Your task to perform on an android device: turn off improve location accuracy Image 0: 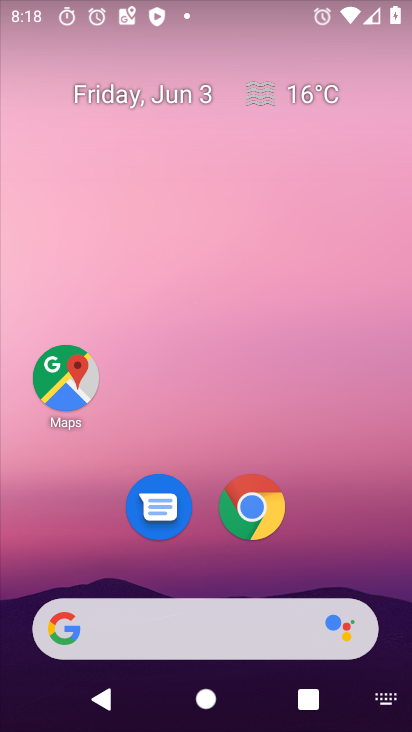
Step 0: drag from (295, 388) to (170, 0)
Your task to perform on an android device: turn off improve location accuracy Image 1: 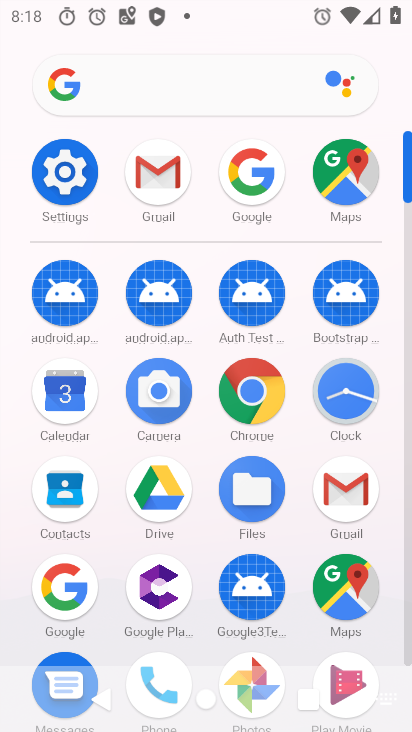
Step 1: click (354, 584)
Your task to perform on an android device: turn off improve location accuracy Image 2: 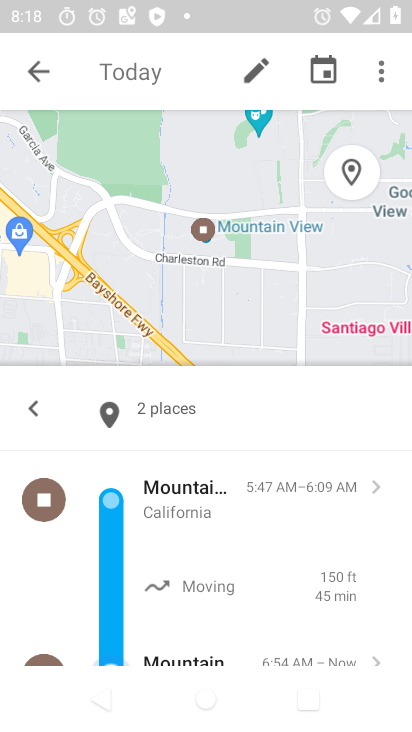
Step 2: press back button
Your task to perform on an android device: turn off improve location accuracy Image 3: 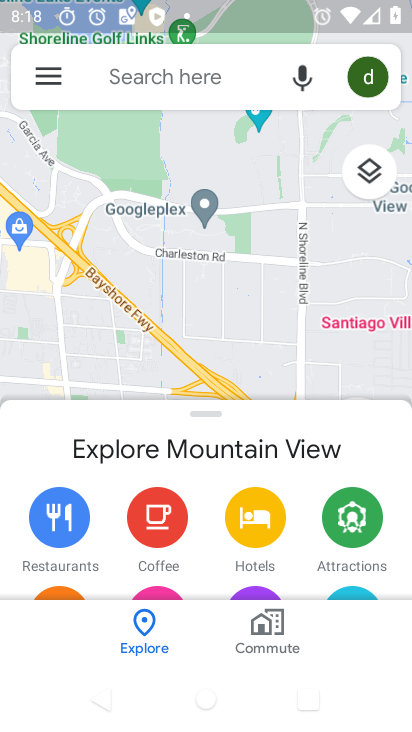
Step 3: press back button
Your task to perform on an android device: turn off improve location accuracy Image 4: 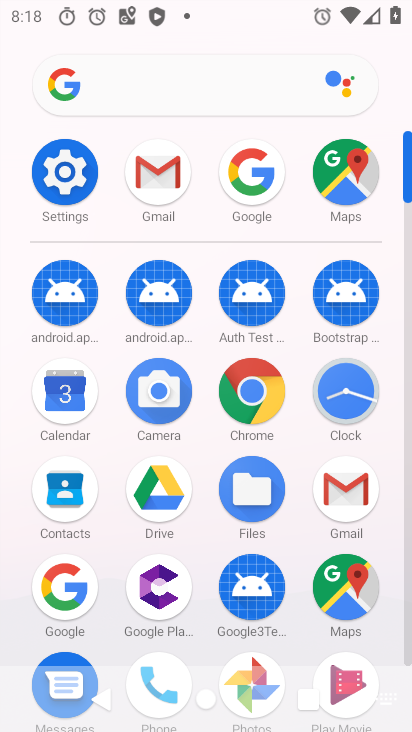
Step 4: click (58, 175)
Your task to perform on an android device: turn off improve location accuracy Image 5: 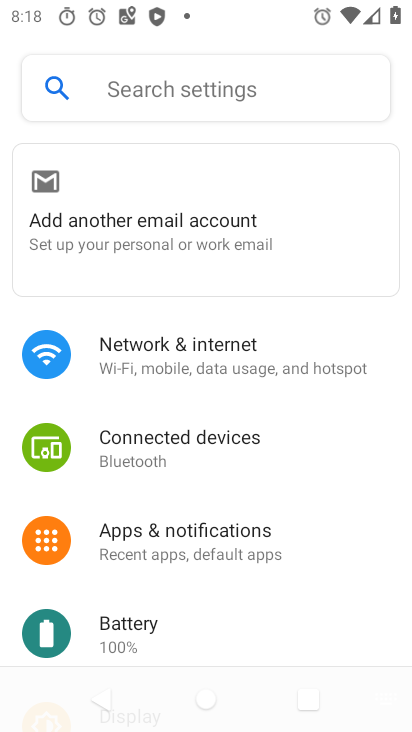
Step 5: drag from (252, 496) to (236, 90)
Your task to perform on an android device: turn off improve location accuracy Image 6: 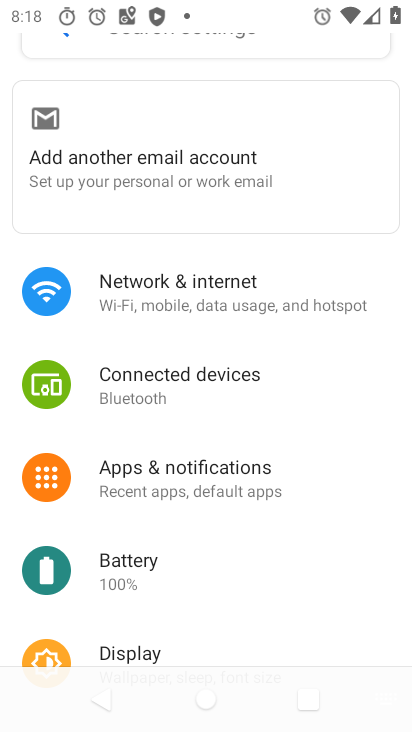
Step 6: drag from (212, 575) to (230, 153)
Your task to perform on an android device: turn off improve location accuracy Image 7: 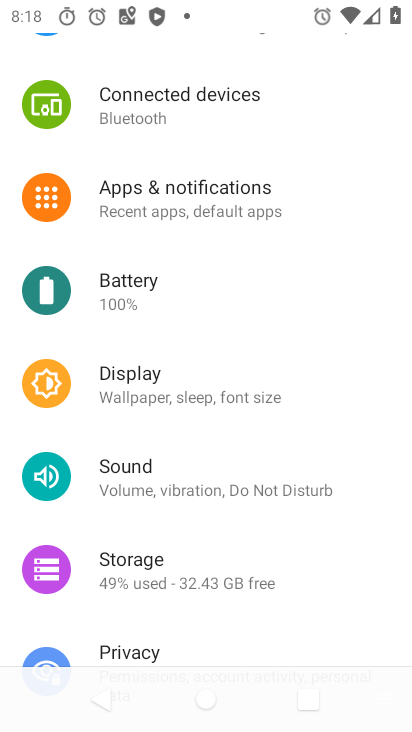
Step 7: drag from (238, 579) to (239, 149)
Your task to perform on an android device: turn off improve location accuracy Image 8: 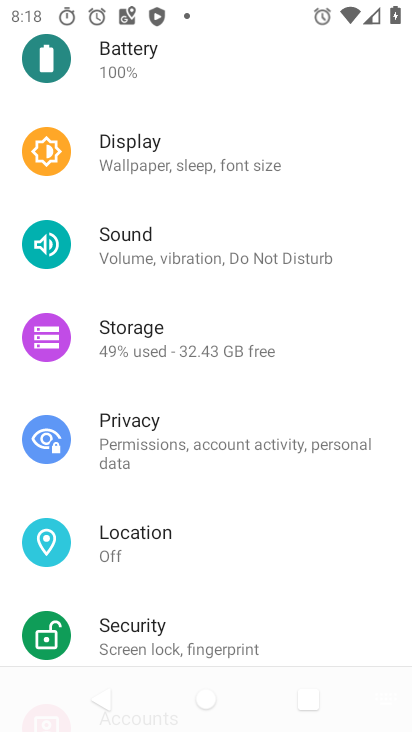
Step 8: click (193, 533)
Your task to perform on an android device: turn off improve location accuracy Image 9: 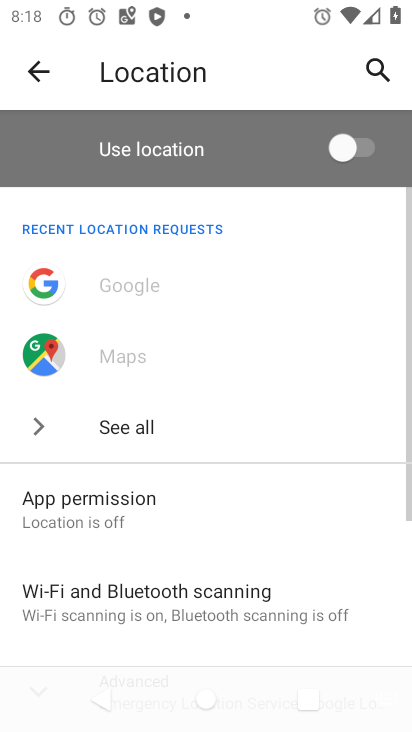
Step 9: drag from (265, 404) to (231, 64)
Your task to perform on an android device: turn off improve location accuracy Image 10: 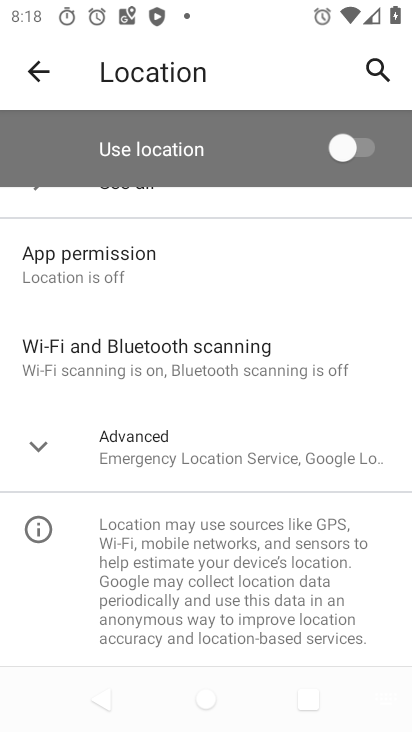
Step 10: click (221, 418)
Your task to perform on an android device: turn off improve location accuracy Image 11: 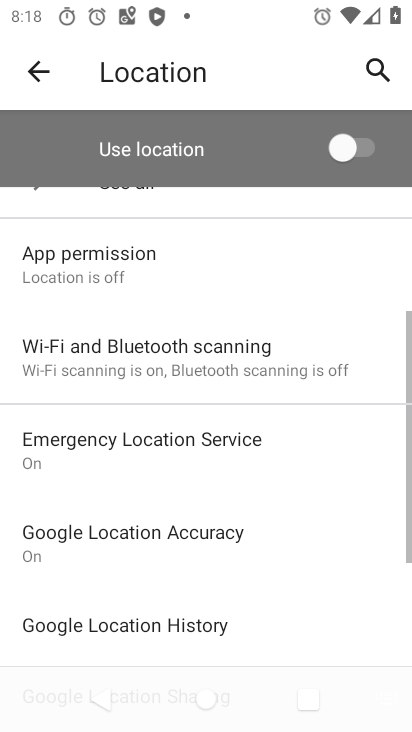
Step 11: drag from (204, 574) to (190, 137)
Your task to perform on an android device: turn off improve location accuracy Image 12: 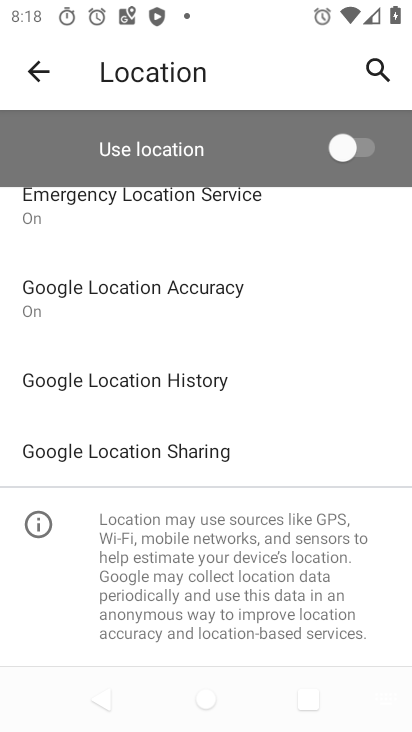
Step 12: click (170, 293)
Your task to perform on an android device: turn off improve location accuracy Image 13: 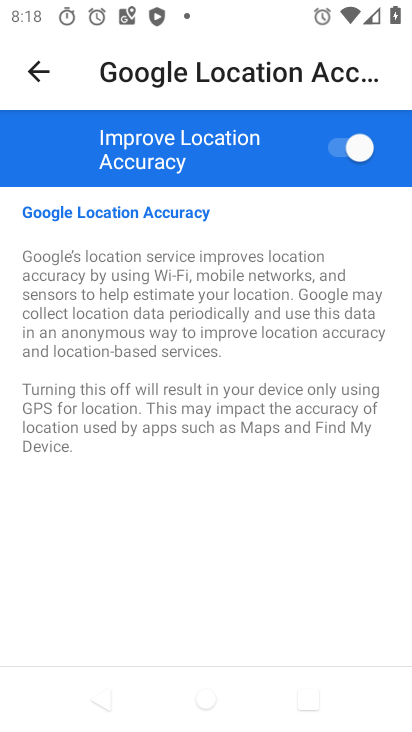
Step 13: click (357, 158)
Your task to perform on an android device: turn off improve location accuracy Image 14: 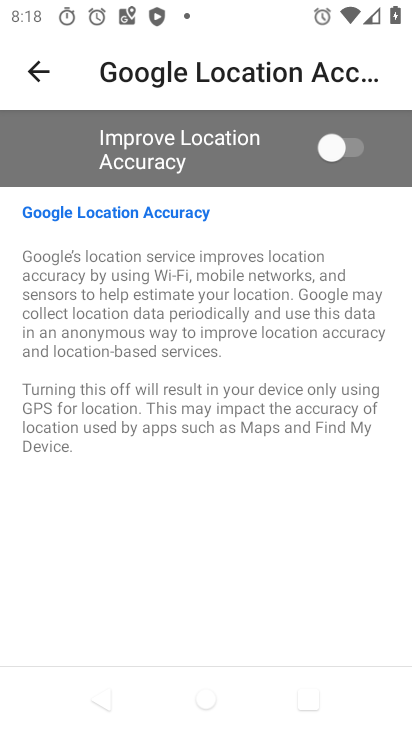
Step 14: task complete